Your task to perform on an android device: turn on data saver in the chrome app Image 0: 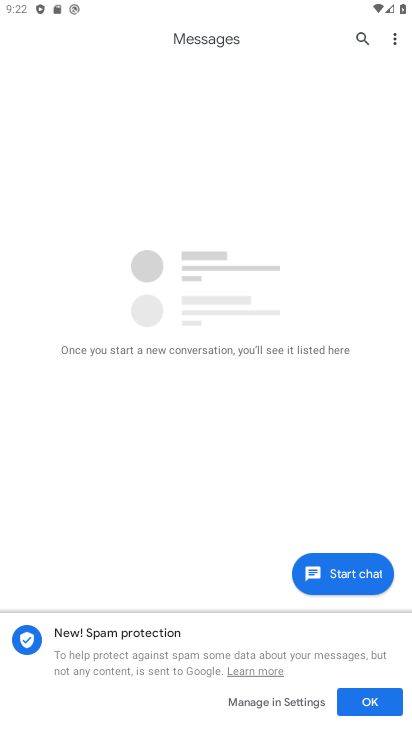
Step 0: click (370, 697)
Your task to perform on an android device: turn on data saver in the chrome app Image 1: 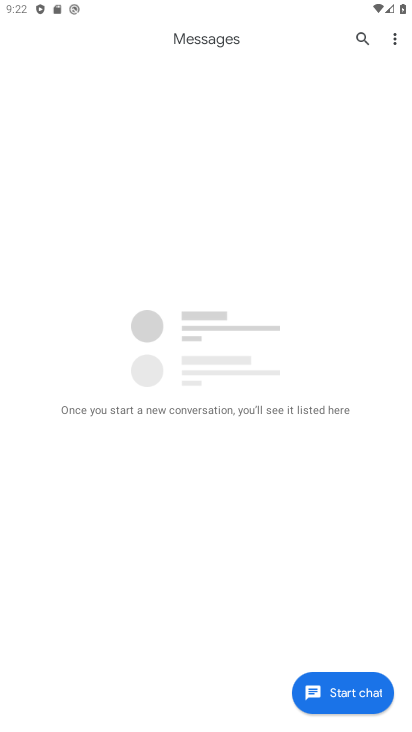
Step 1: press home button
Your task to perform on an android device: turn on data saver in the chrome app Image 2: 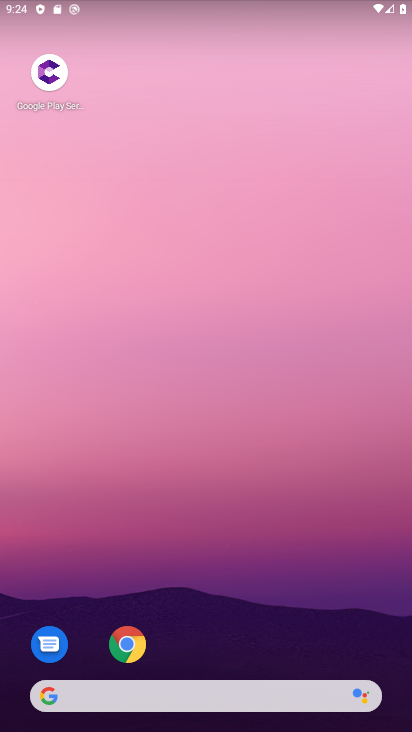
Step 2: click (127, 642)
Your task to perform on an android device: turn on data saver in the chrome app Image 3: 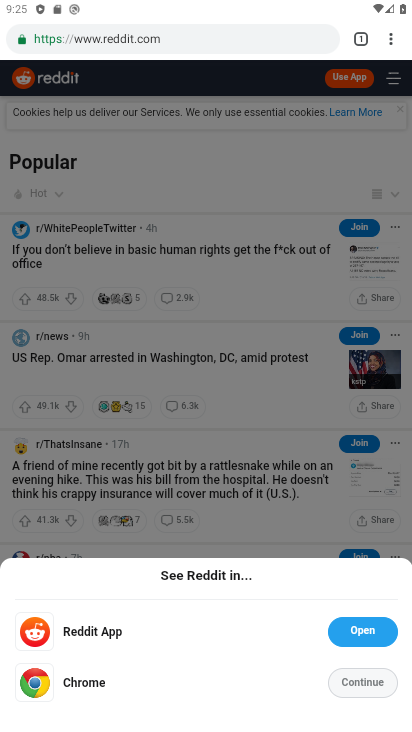
Step 3: task complete